Your task to perform on an android device: Open internet settings Image 0: 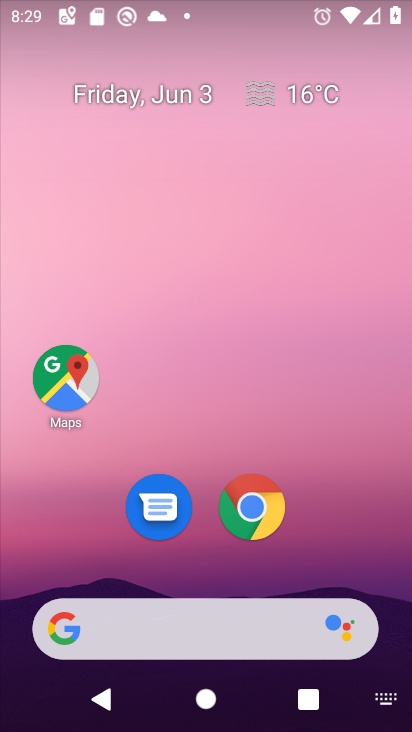
Step 0: drag from (338, 470) to (217, 1)
Your task to perform on an android device: Open internet settings Image 1: 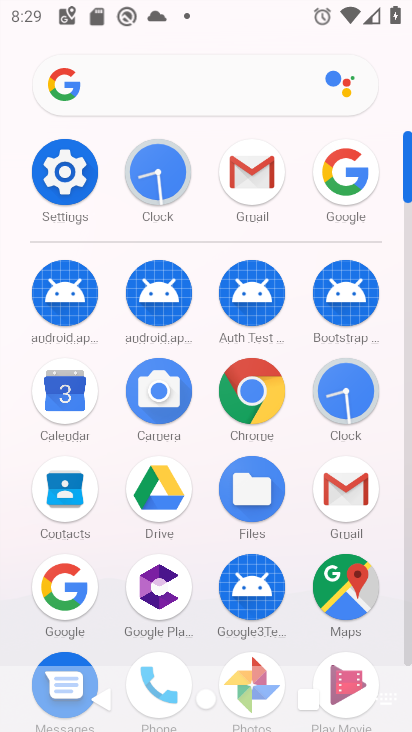
Step 1: click (63, 175)
Your task to perform on an android device: Open internet settings Image 2: 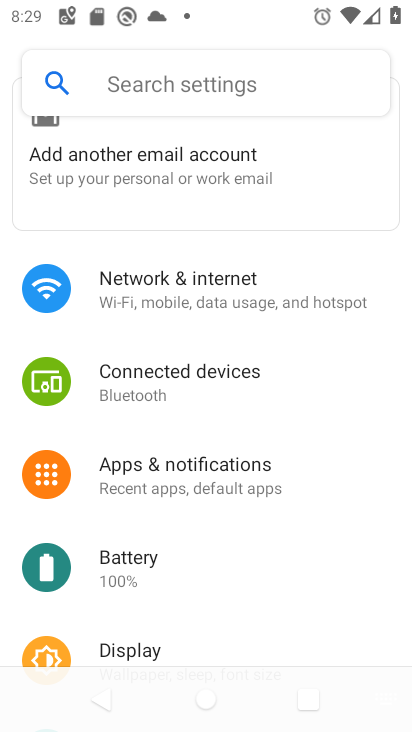
Step 2: click (216, 256)
Your task to perform on an android device: Open internet settings Image 3: 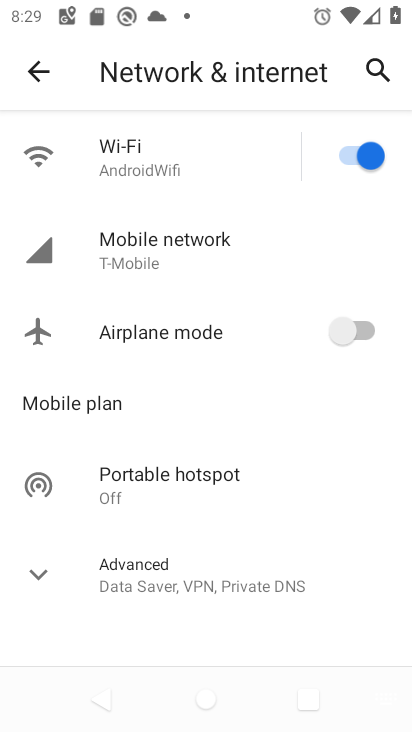
Step 3: task complete